Your task to perform on an android device: turn notification dots off Image 0: 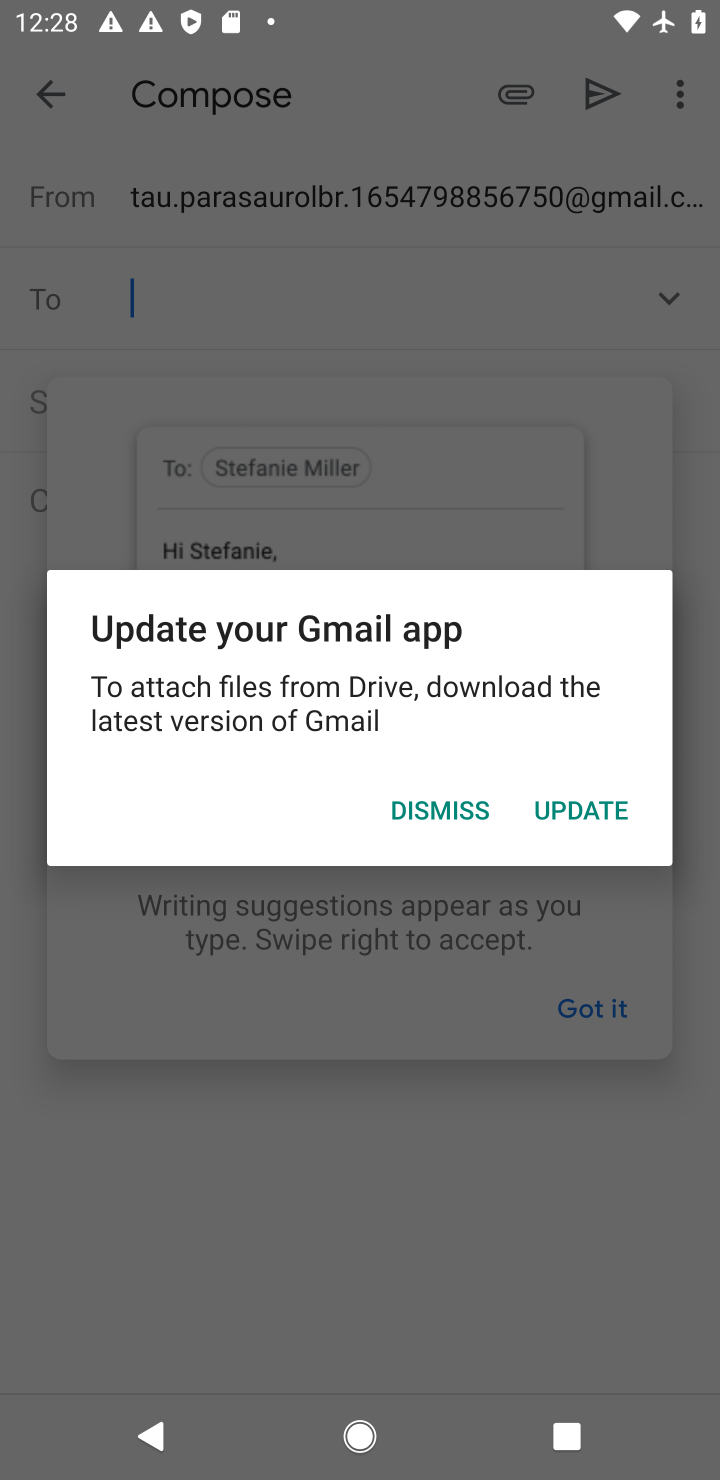
Step 0: click (452, 826)
Your task to perform on an android device: turn notification dots off Image 1: 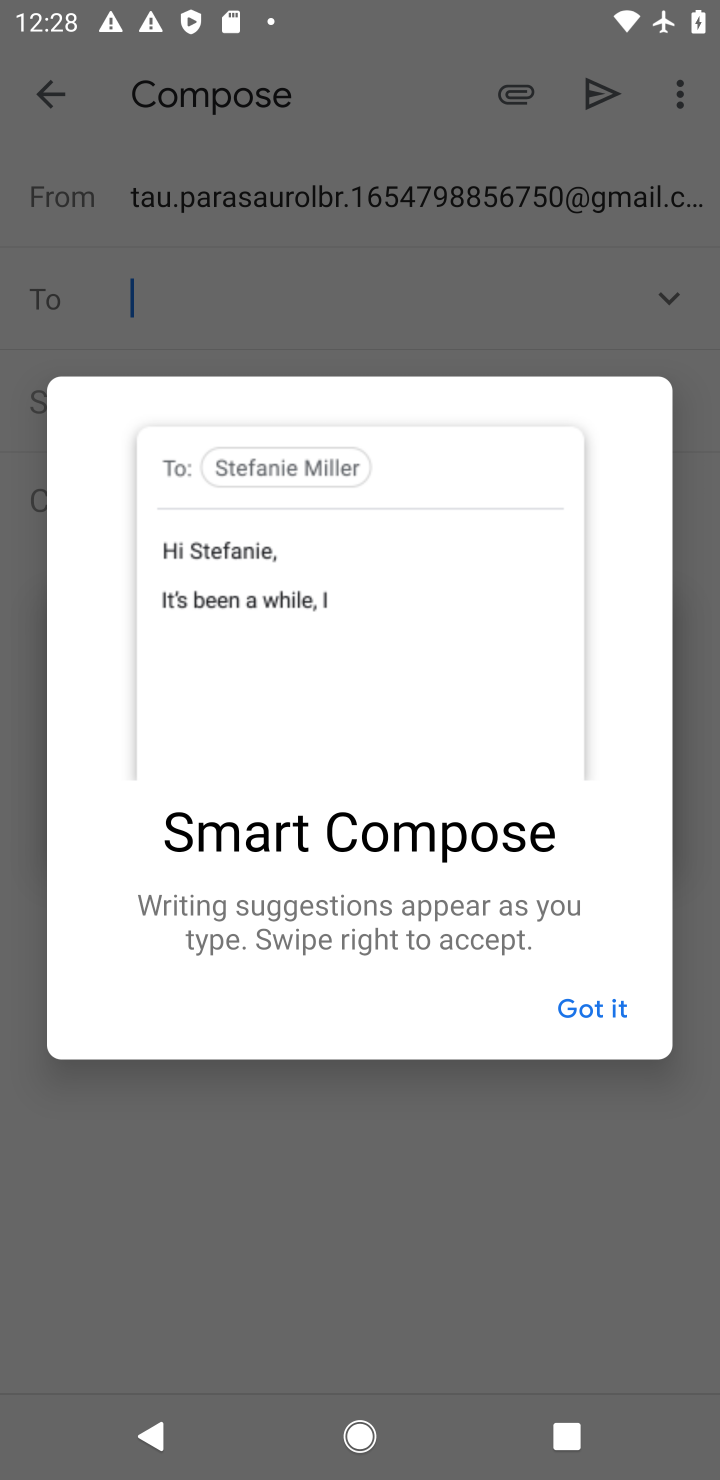
Step 1: click (559, 1012)
Your task to perform on an android device: turn notification dots off Image 2: 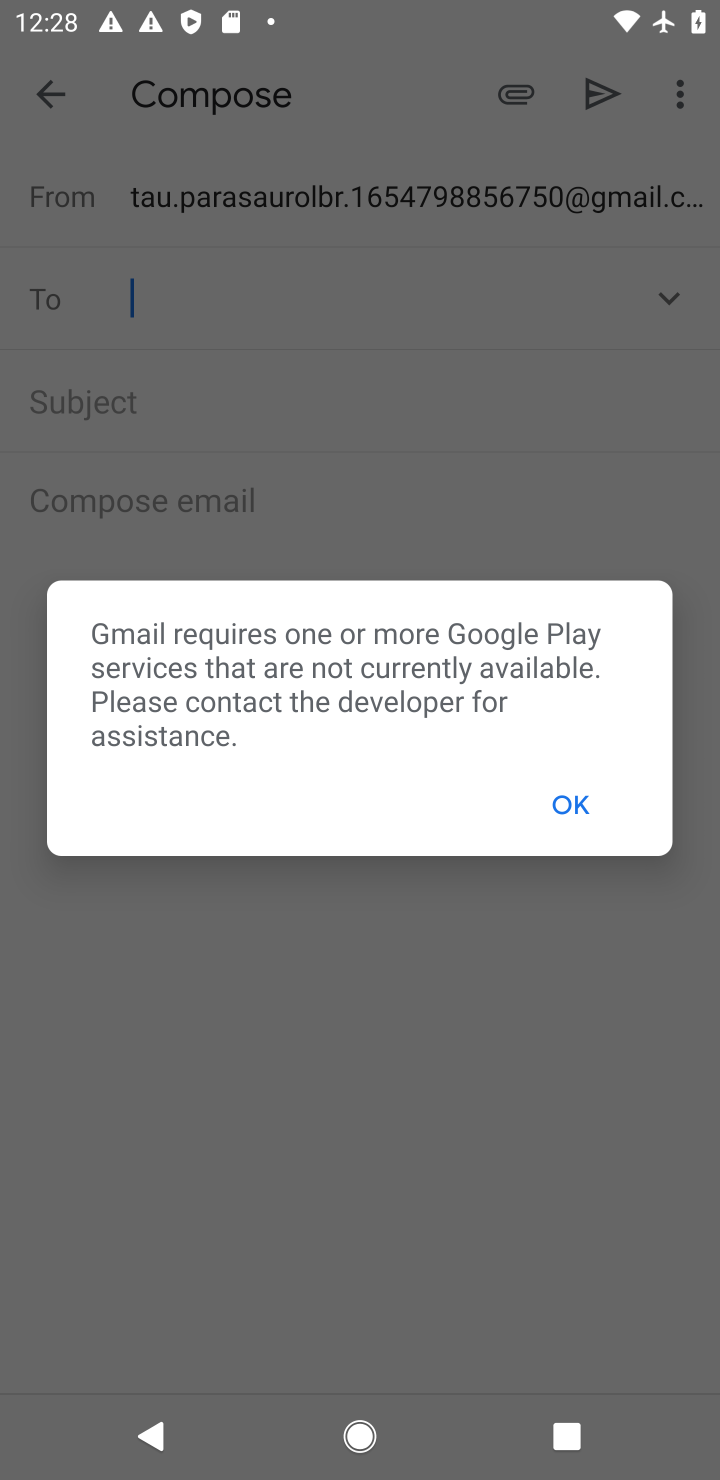
Step 2: click (560, 818)
Your task to perform on an android device: turn notification dots off Image 3: 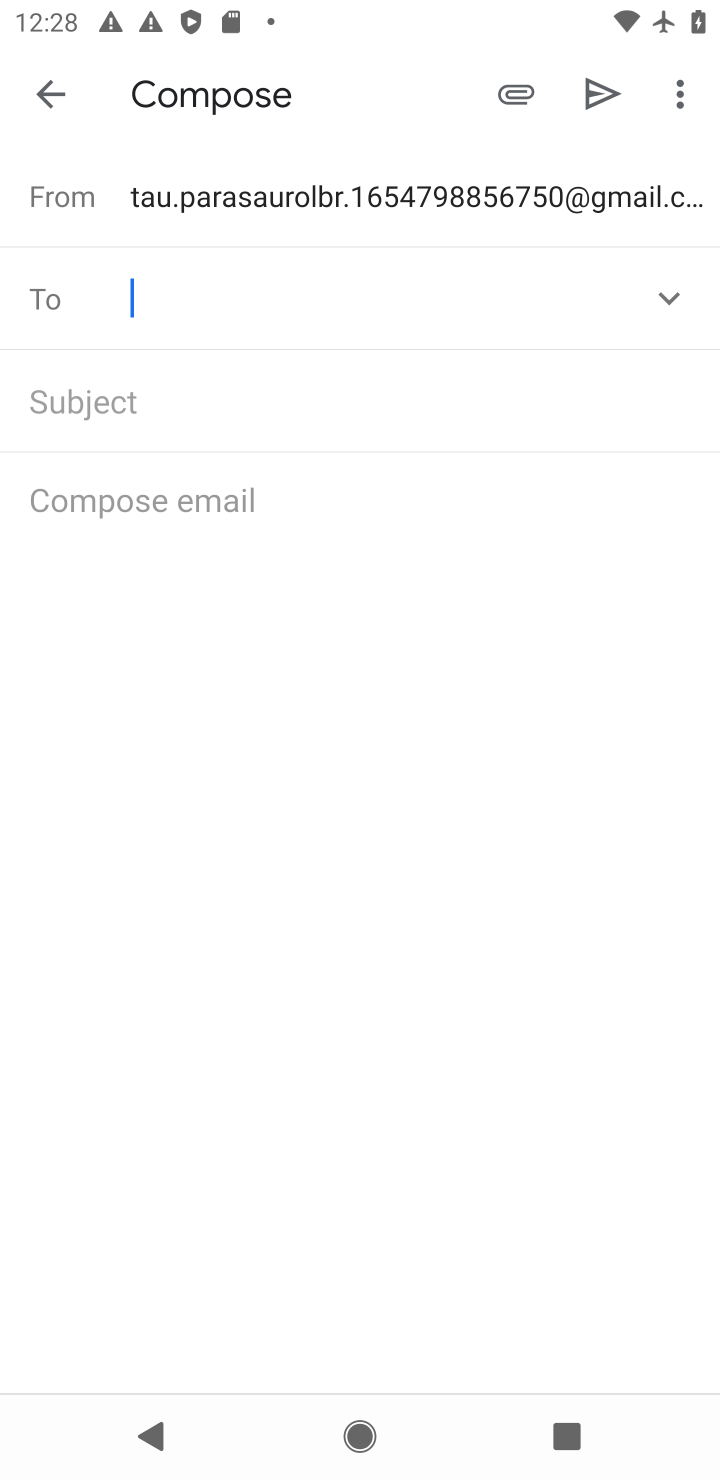
Step 3: task complete